Your task to perform on an android device: change the clock display to show seconds Image 0: 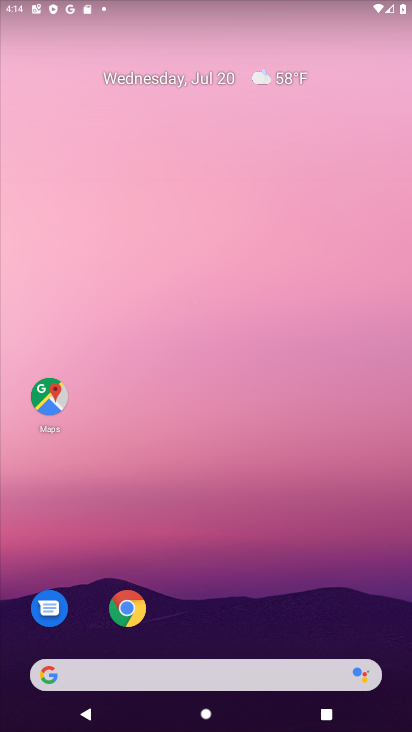
Step 0: drag from (217, 537) to (266, 97)
Your task to perform on an android device: change the clock display to show seconds Image 1: 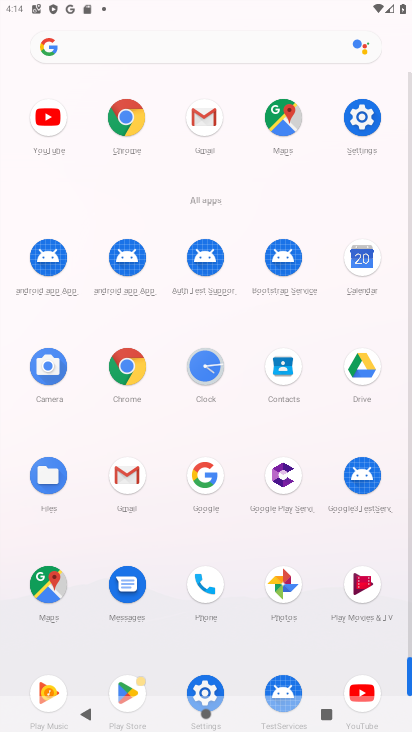
Step 1: click (217, 379)
Your task to perform on an android device: change the clock display to show seconds Image 2: 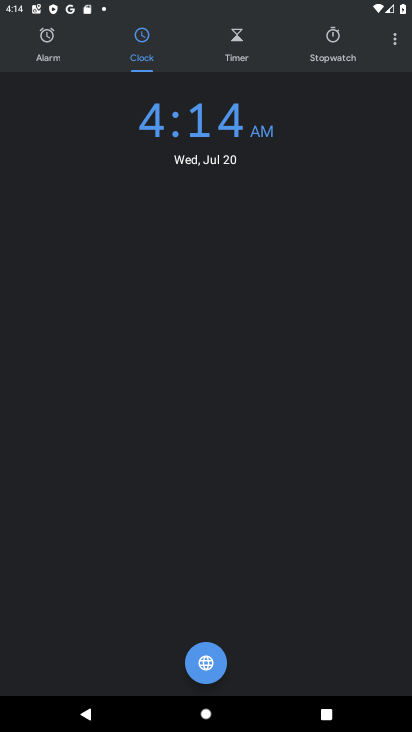
Step 2: click (387, 39)
Your task to perform on an android device: change the clock display to show seconds Image 3: 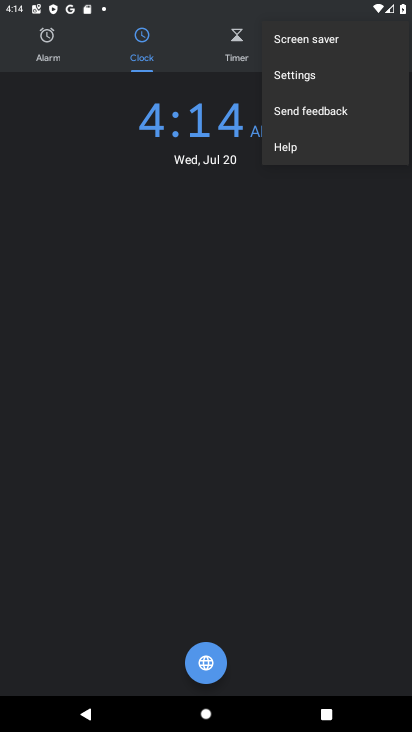
Step 3: click (303, 81)
Your task to perform on an android device: change the clock display to show seconds Image 4: 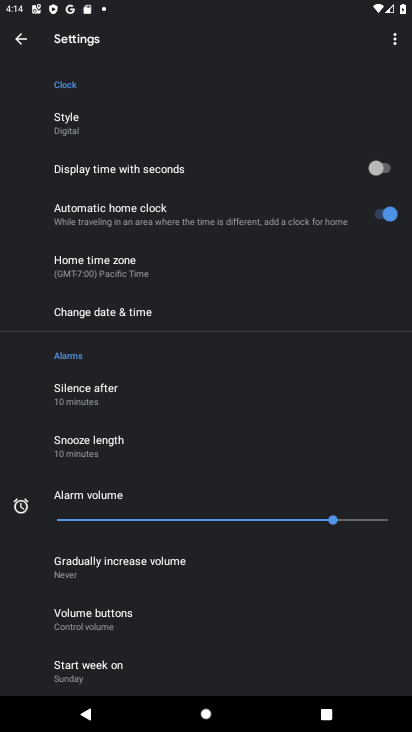
Step 4: click (69, 128)
Your task to perform on an android device: change the clock display to show seconds Image 5: 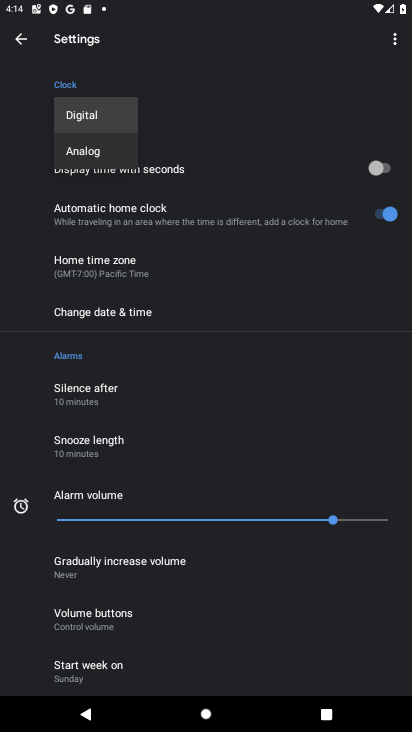
Step 5: click (116, 152)
Your task to perform on an android device: change the clock display to show seconds Image 6: 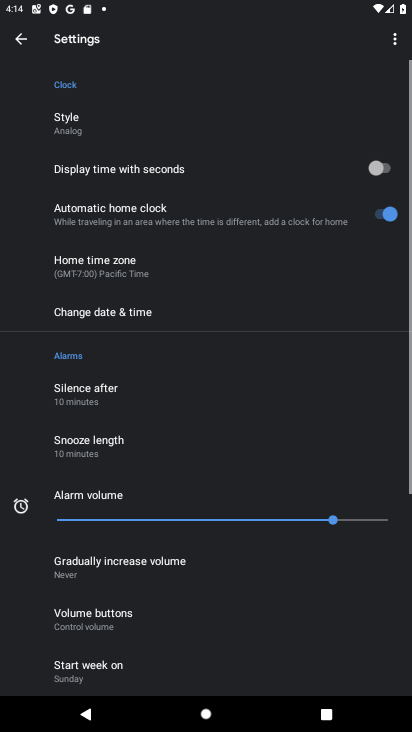
Step 6: click (400, 170)
Your task to perform on an android device: change the clock display to show seconds Image 7: 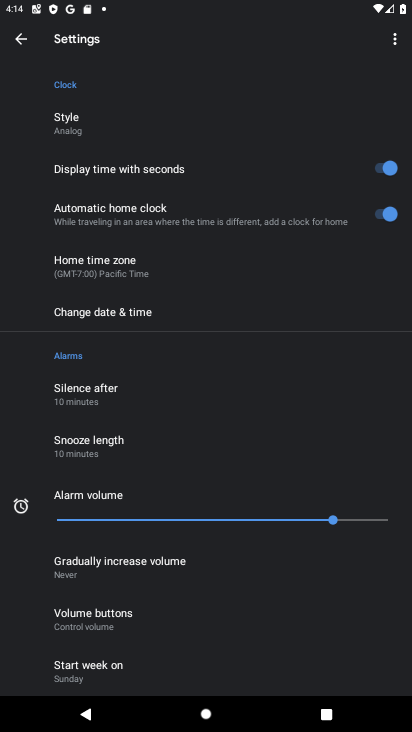
Step 7: task complete